Your task to perform on an android device: Toggle the flashlight Image 0: 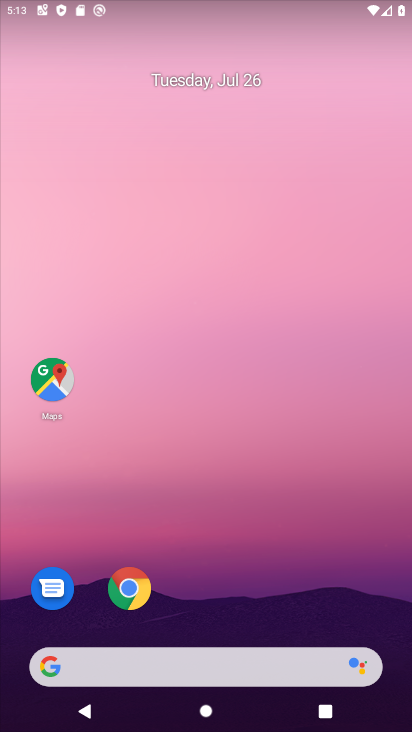
Step 0: drag from (225, 622) to (221, 165)
Your task to perform on an android device: Toggle the flashlight Image 1: 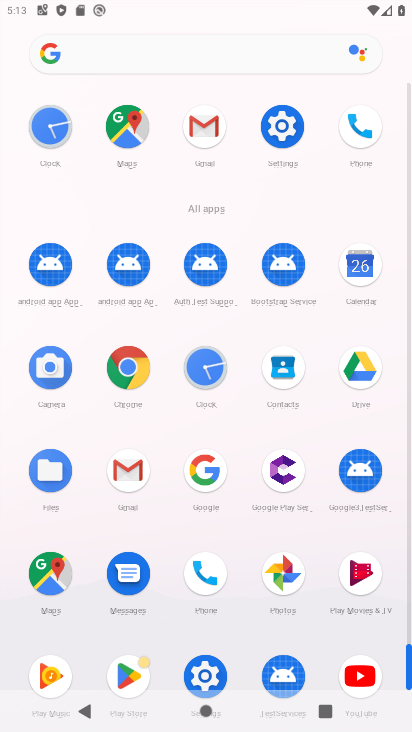
Step 1: drag from (245, 9) to (251, 332)
Your task to perform on an android device: Toggle the flashlight Image 2: 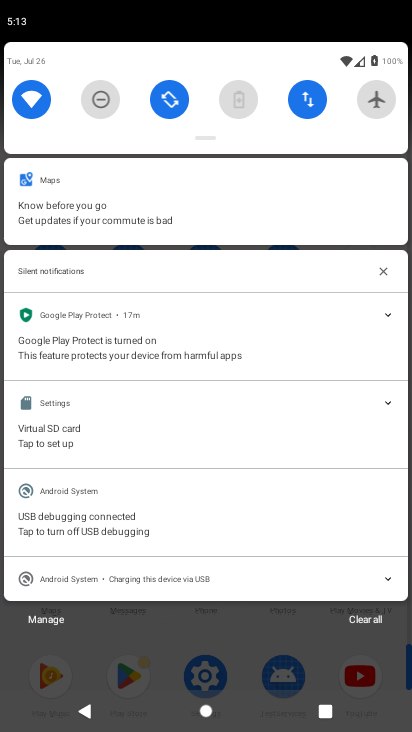
Step 2: drag from (221, 123) to (253, 493)
Your task to perform on an android device: Toggle the flashlight Image 3: 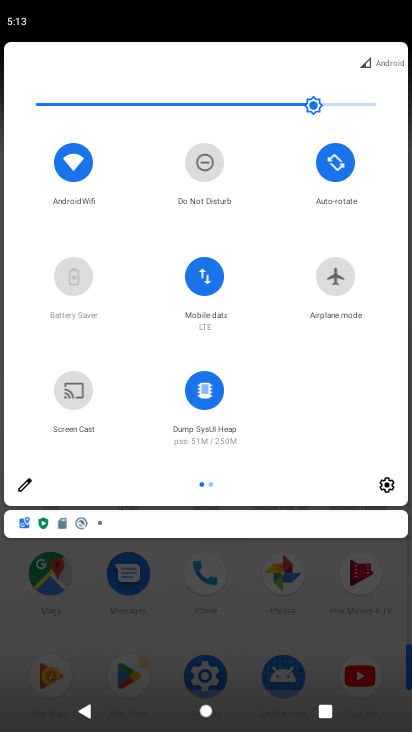
Step 3: drag from (277, 327) to (25, 249)
Your task to perform on an android device: Toggle the flashlight Image 4: 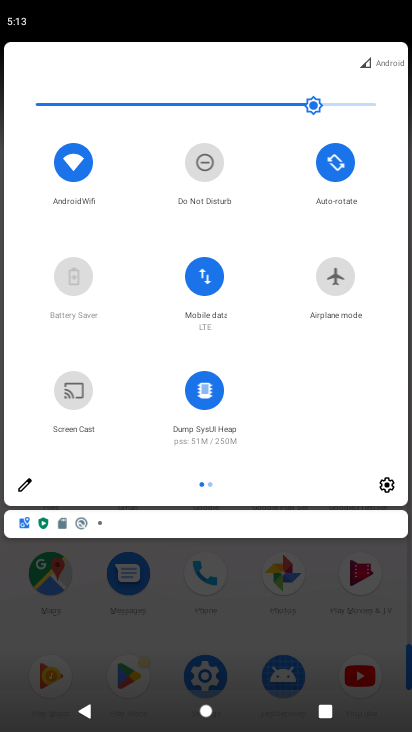
Step 4: click (26, 336)
Your task to perform on an android device: Toggle the flashlight Image 5: 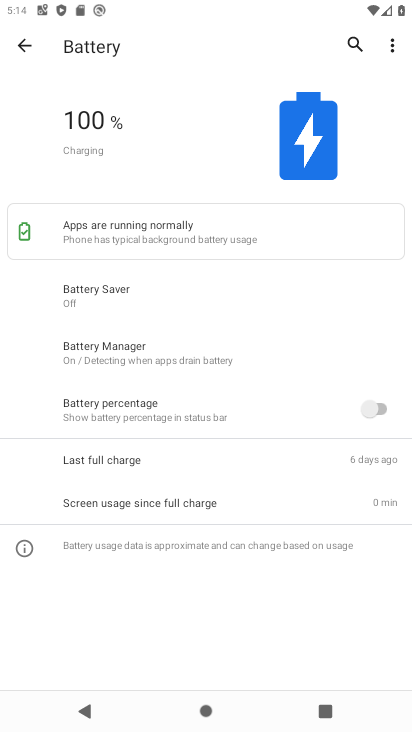
Step 5: task complete